Your task to perform on an android device: Open Reddit.com Image 0: 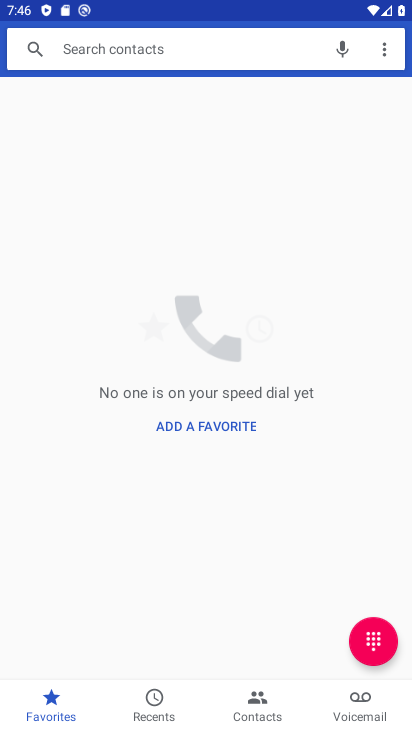
Step 0: press home button
Your task to perform on an android device: Open Reddit.com Image 1: 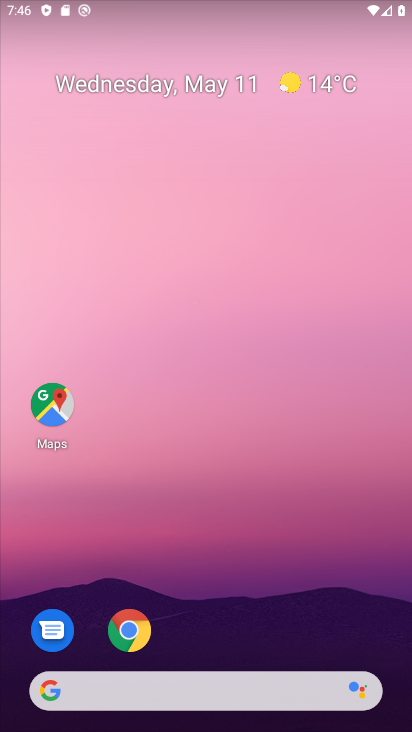
Step 1: click (144, 632)
Your task to perform on an android device: Open Reddit.com Image 2: 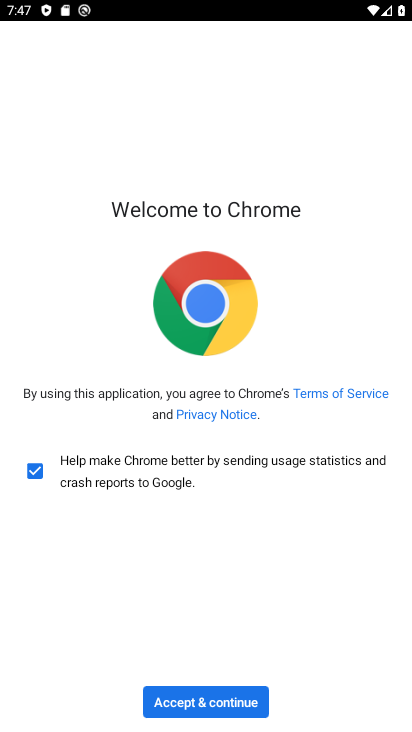
Step 2: click (217, 699)
Your task to perform on an android device: Open Reddit.com Image 3: 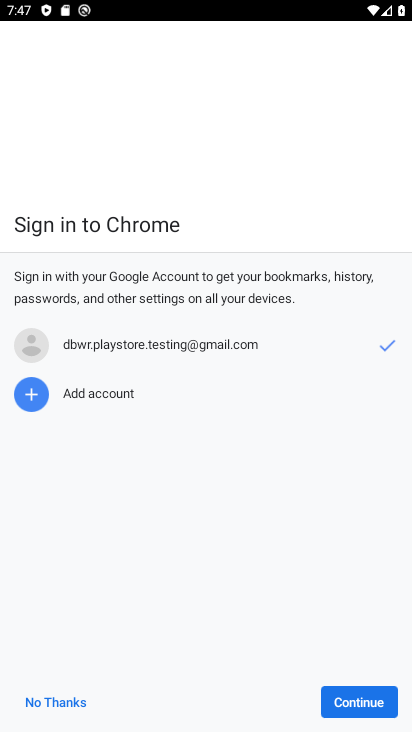
Step 3: click (348, 708)
Your task to perform on an android device: Open Reddit.com Image 4: 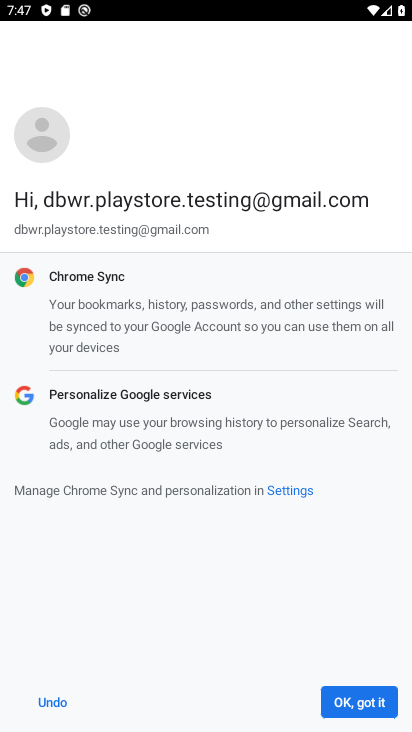
Step 4: click (371, 691)
Your task to perform on an android device: Open Reddit.com Image 5: 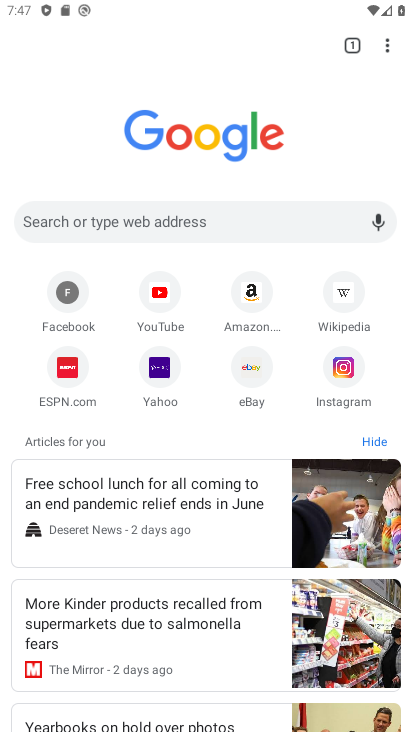
Step 5: click (218, 227)
Your task to perform on an android device: Open Reddit.com Image 6: 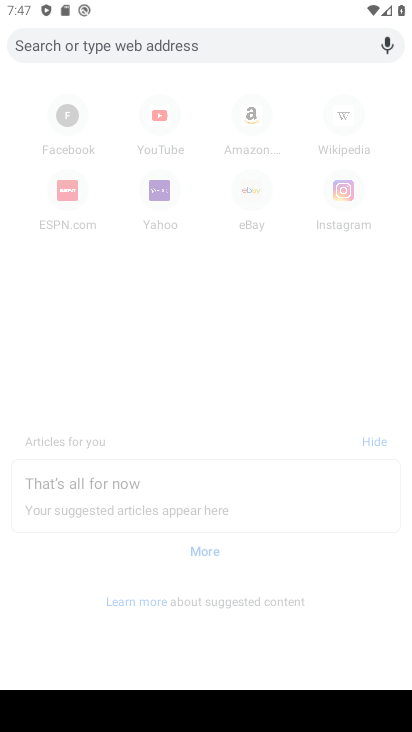
Step 6: type "reddit"
Your task to perform on an android device: Open Reddit.com Image 7: 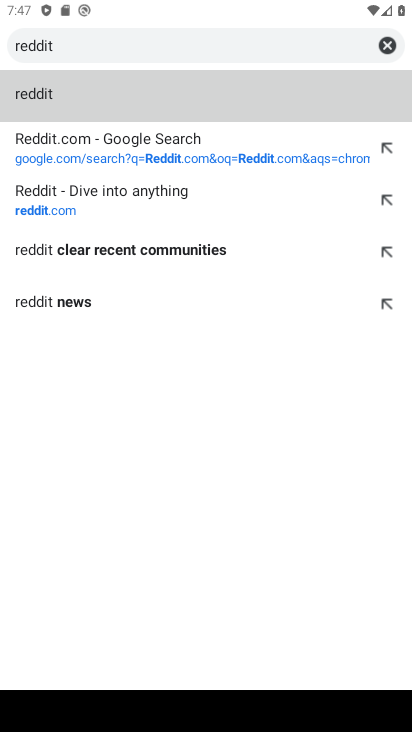
Step 7: click (88, 157)
Your task to perform on an android device: Open Reddit.com Image 8: 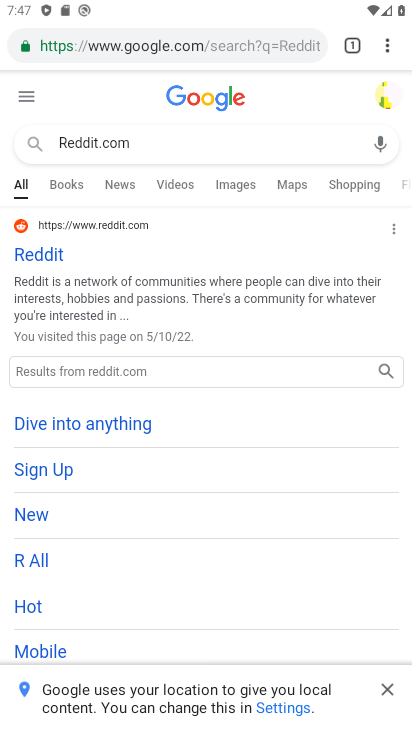
Step 8: click (24, 254)
Your task to perform on an android device: Open Reddit.com Image 9: 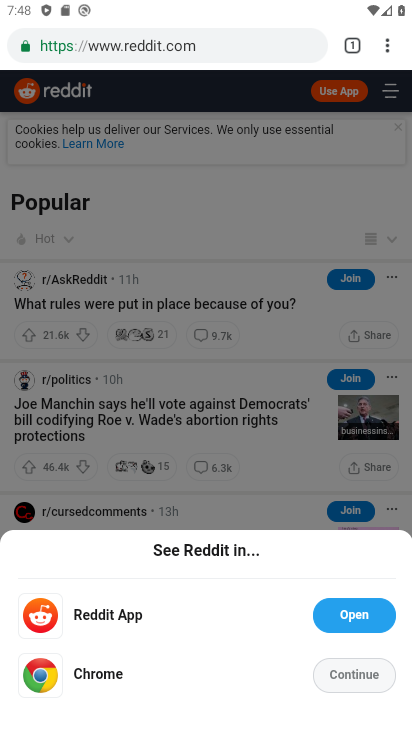
Step 9: click (358, 678)
Your task to perform on an android device: Open Reddit.com Image 10: 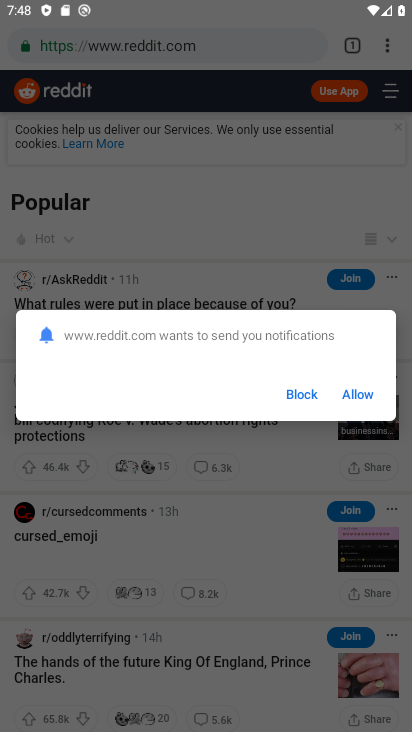
Step 10: click (345, 385)
Your task to perform on an android device: Open Reddit.com Image 11: 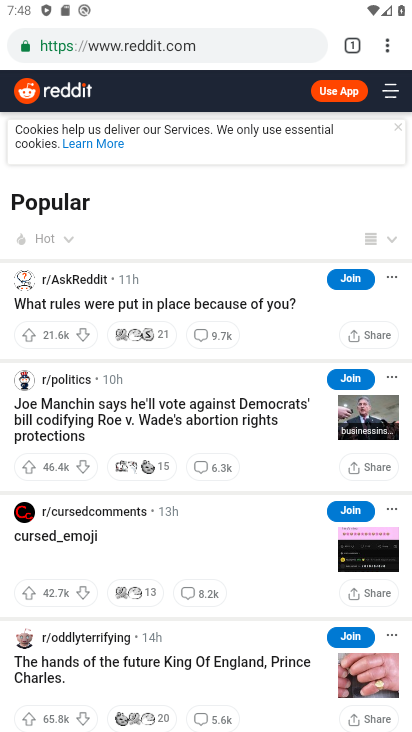
Step 11: task complete